Your task to perform on an android device: Check the weather Image 0: 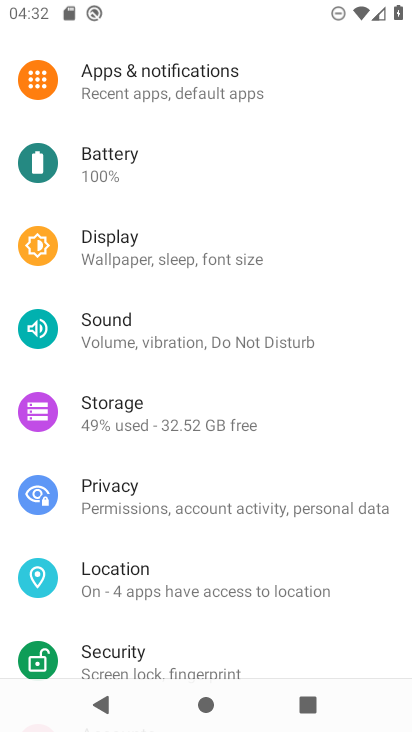
Step 0: press home button
Your task to perform on an android device: Check the weather Image 1: 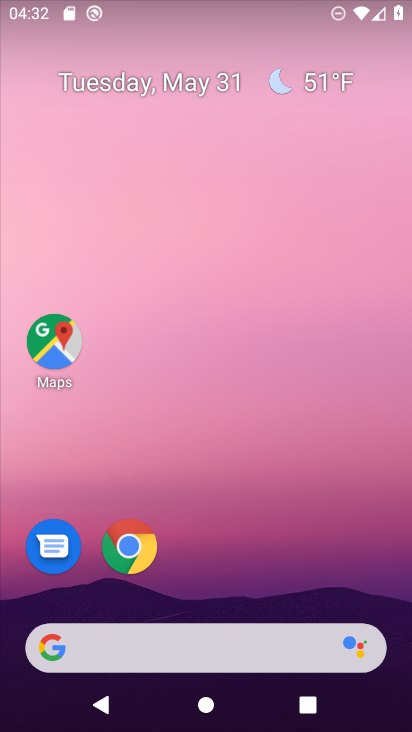
Step 1: drag from (207, 580) to (170, 211)
Your task to perform on an android device: Check the weather Image 2: 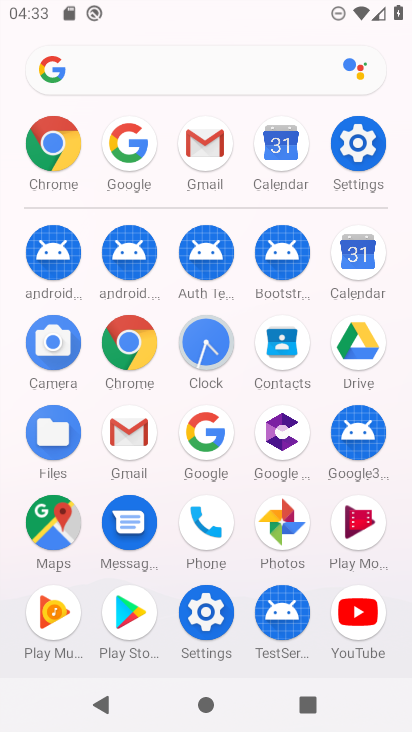
Step 2: click (202, 453)
Your task to perform on an android device: Check the weather Image 3: 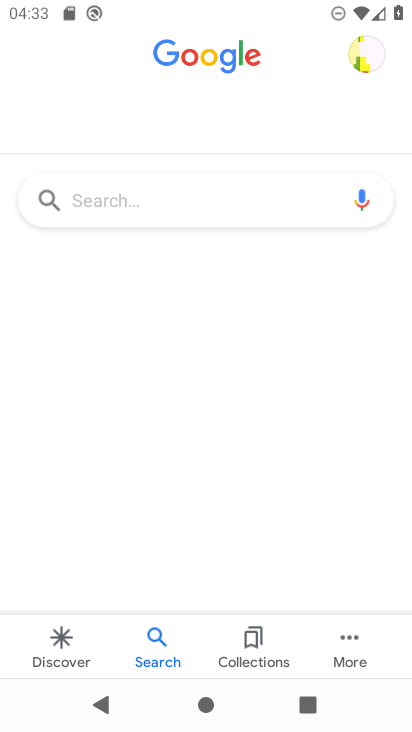
Step 3: click (170, 215)
Your task to perform on an android device: Check the weather Image 4: 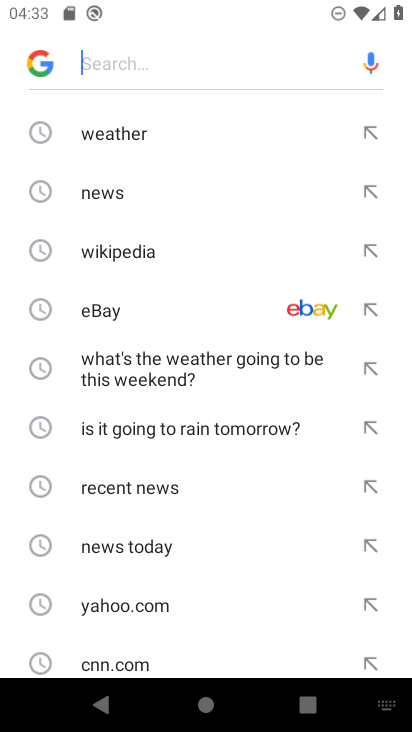
Step 4: click (143, 152)
Your task to perform on an android device: Check the weather Image 5: 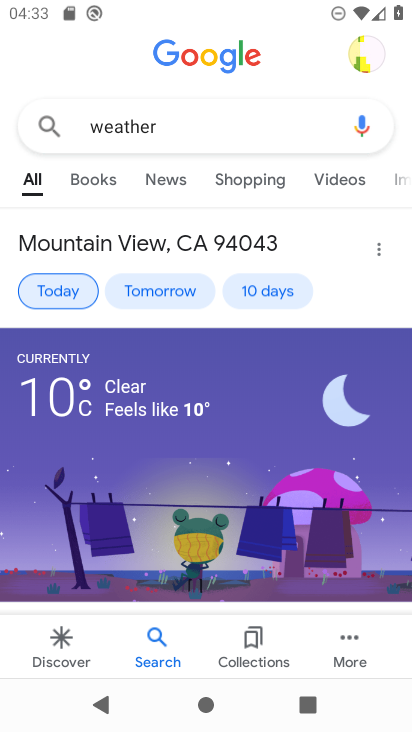
Step 5: task complete